Your task to perform on an android device: Open battery settings Image 0: 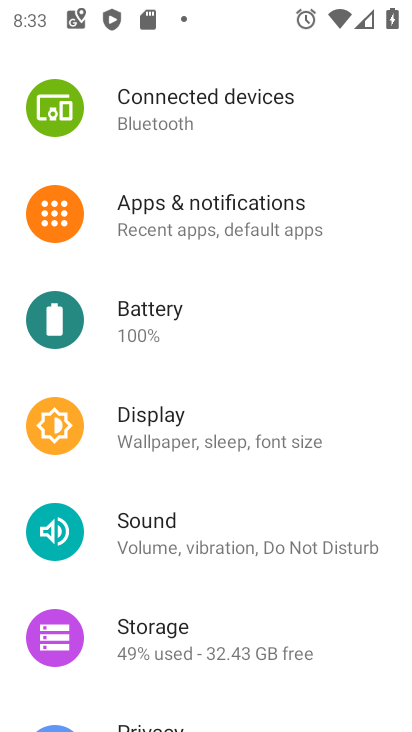
Step 0: click (174, 323)
Your task to perform on an android device: Open battery settings Image 1: 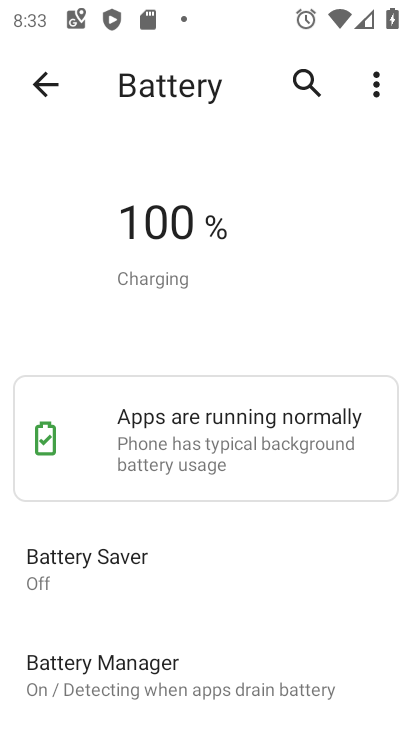
Step 1: task complete